Your task to perform on an android device: open a bookmark in the chrome app Image 0: 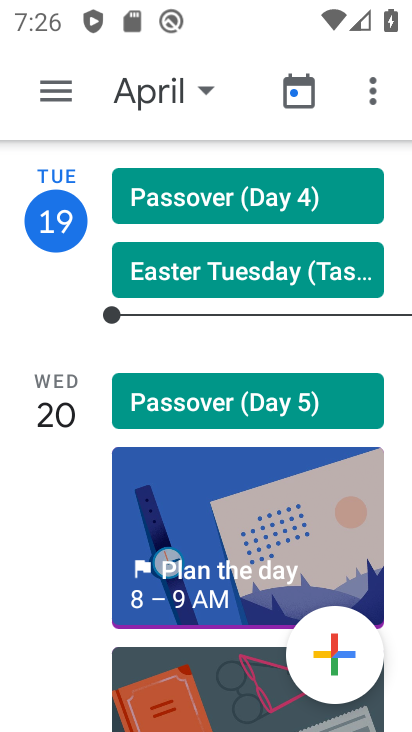
Step 0: press home button
Your task to perform on an android device: open a bookmark in the chrome app Image 1: 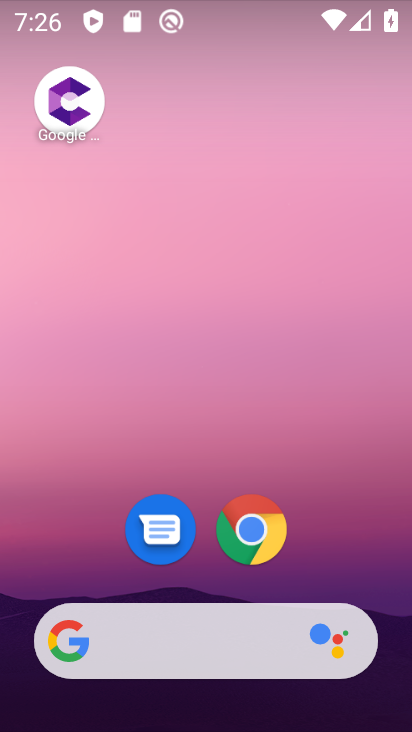
Step 1: drag from (171, 556) to (326, 123)
Your task to perform on an android device: open a bookmark in the chrome app Image 2: 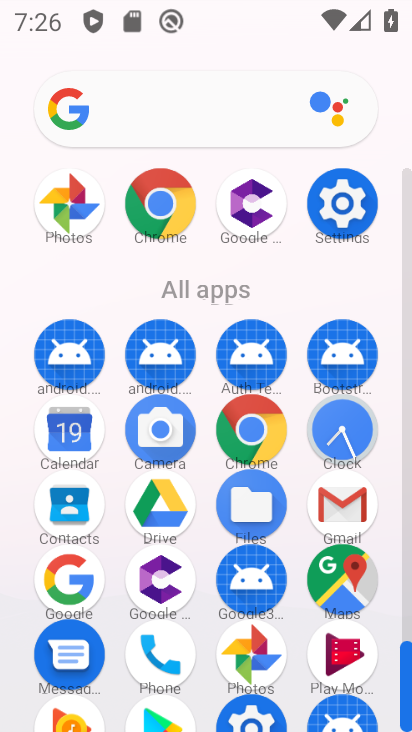
Step 2: click (174, 209)
Your task to perform on an android device: open a bookmark in the chrome app Image 3: 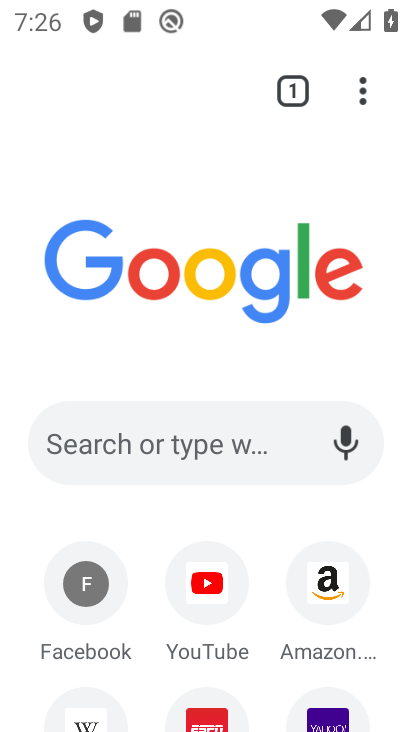
Step 3: click (363, 85)
Your task to perform on an android device: open a bookmark in the chrome app Image 4: 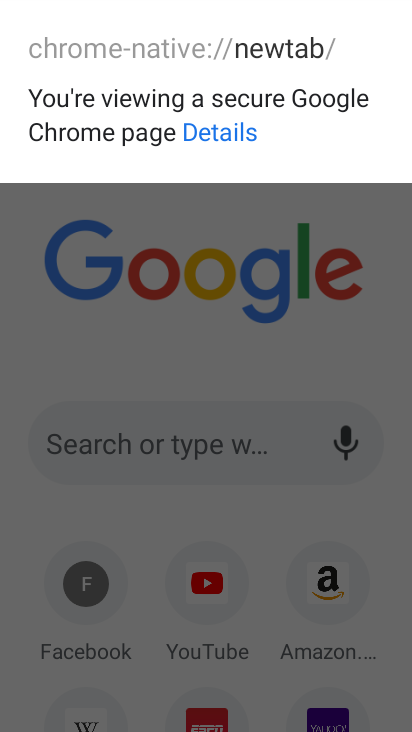
Step 4: press back button
Your task to perform on an android device: open a bookmark in the chrome app Image 5: 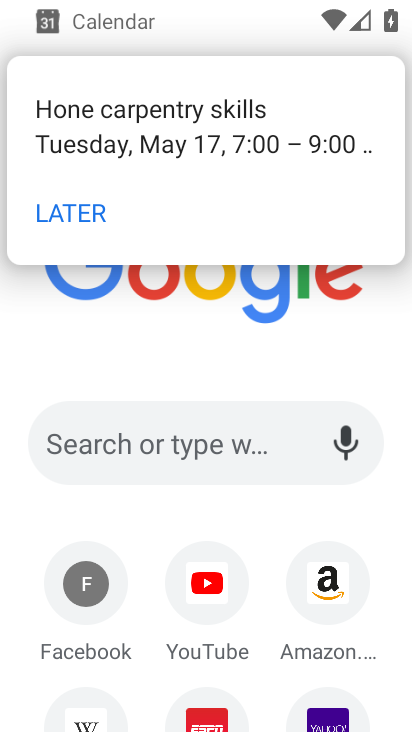
Step 5: click (72, 206)
Your task to perform on an android device: open a bookmark in the chrome app Image 6: 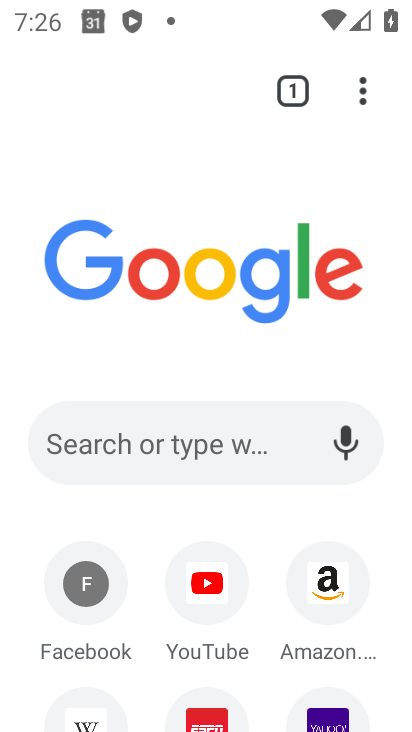
Step 6: click (77, 202)
Your task to perform on an android device: open a bookmark in the chrome app Image 7: 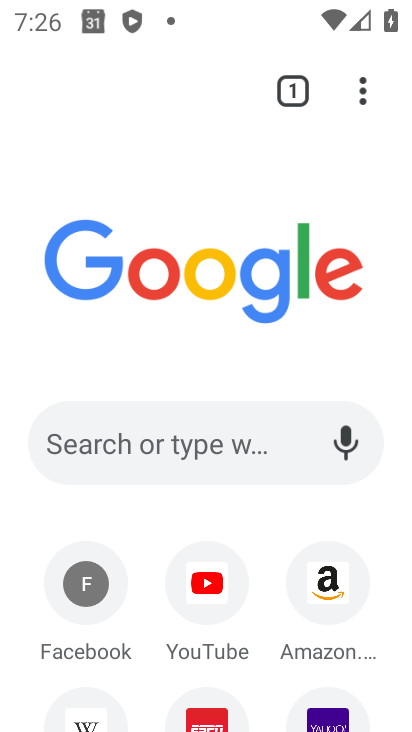
Step 7: click (363, 94)
Your task to perform on an android device: open a bookmark in the chrome app Image 8: 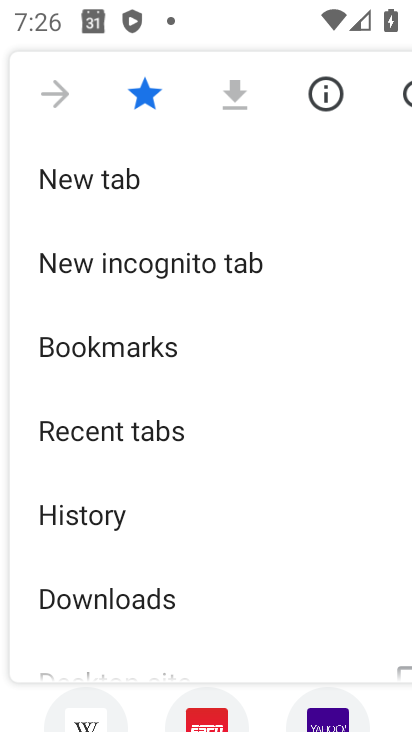
Step 8: click (139, 347)
Your task to perform on an android device: open a bookmark in the chrome app Image 9: 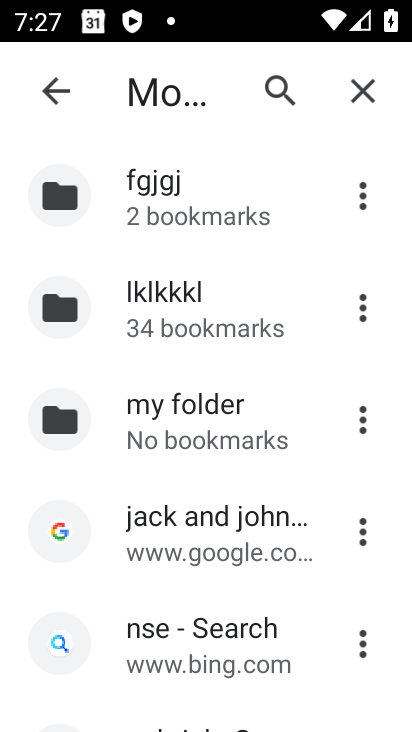
Step 9: task complete